Your task to perform on an android device: Go to network settings Image 0: 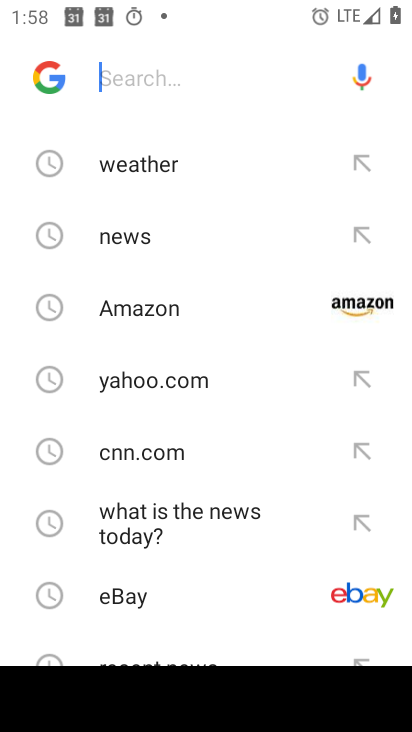
Step 0: press home button
Your task to perform on an android device: Go to network settings Image 1: 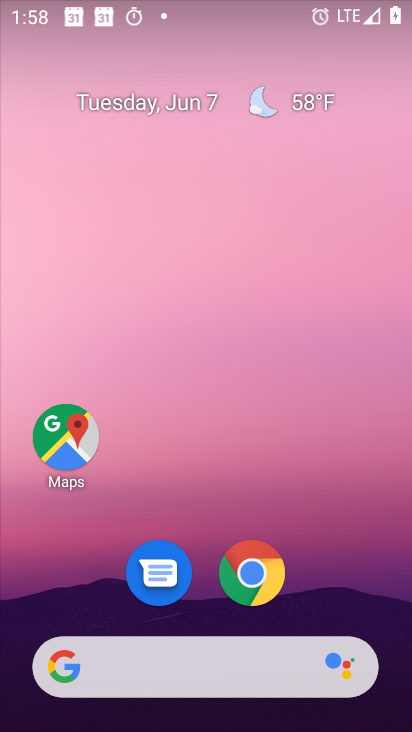
Step 1: drag from (338, 578) to (337, 20)
Your task to perform on an android device: Go to network settings Image 2: 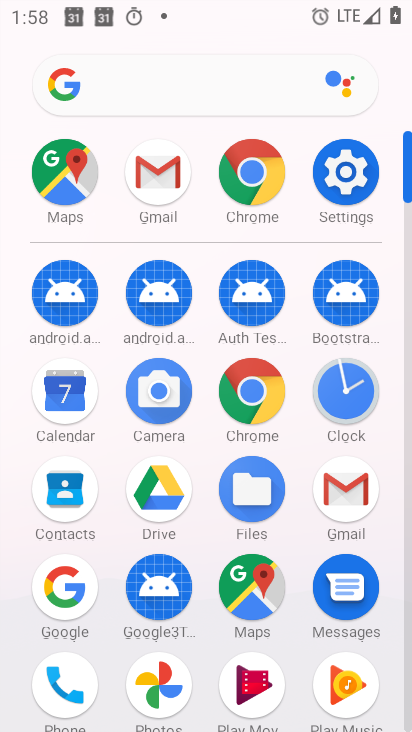
Step 2: click (344, 172)
Your task to perform on an android device: Go to network settings Image 3: 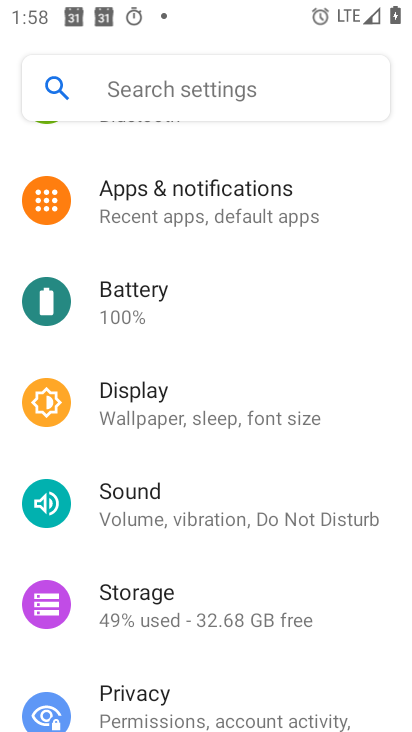
Step 3: drag from (284, 244) to (209, 683)
Your task to perform on an android device: Go to network settings Image 4: 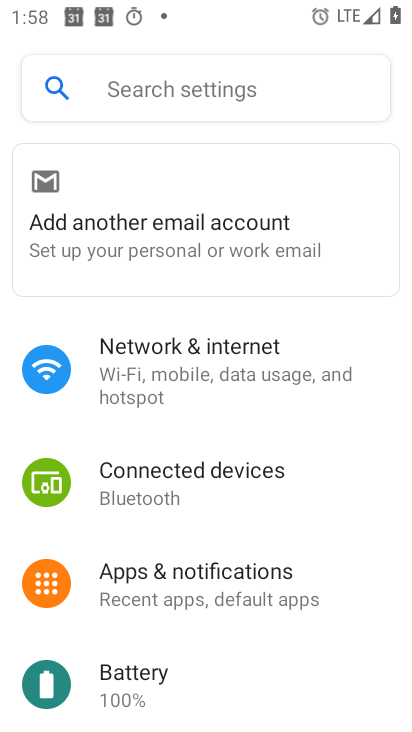
Step 4: click (216, 354)
Your task to perform on an android device: Go to network settings Image 5: 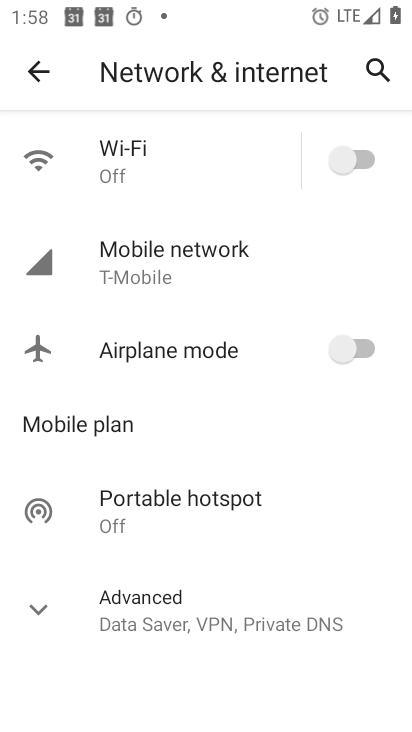
Step 5: task complete